Your task to perform on an android device: Open the calendar app, open the side menu, and click the "Day" option Image 0: 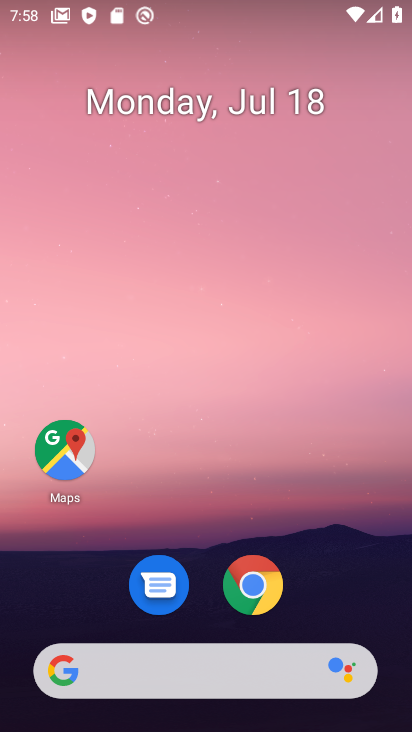
Step 0: press home button
Your task to perform on an android device: Open the calendar app, open the side menu, and click the "Day" option Image 1: 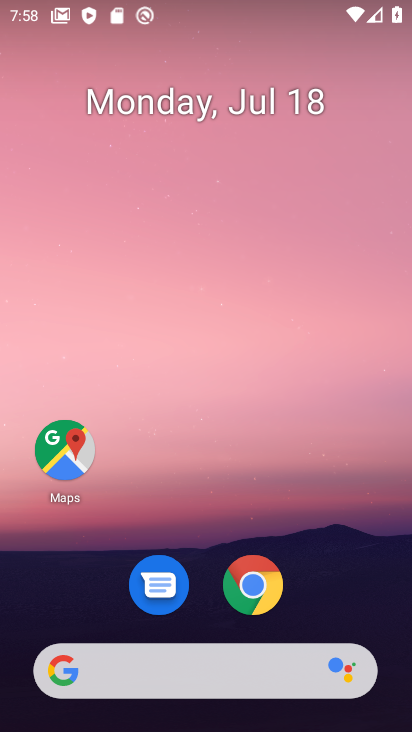
Step 1: drag from (192, 585) to (278, 138)
Your task to perform on an android device: Open the calendar app, open the side menu, and click the "Day" option Image 2: 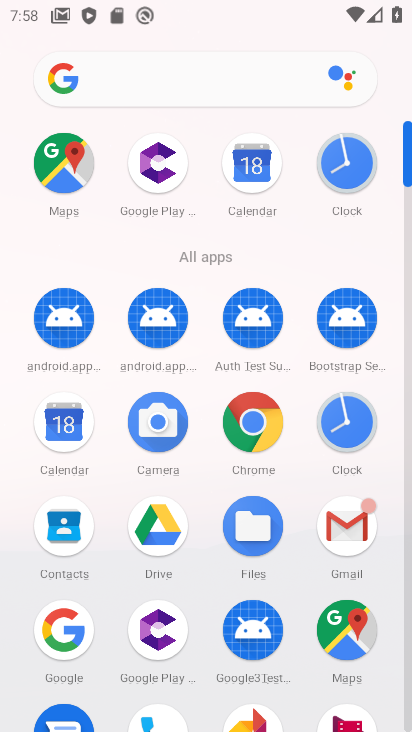
Step 2: click (61, 435)
Your task to perform on an android device: Open the calendar app, open the side menu, and click the "Day" option Image 3: 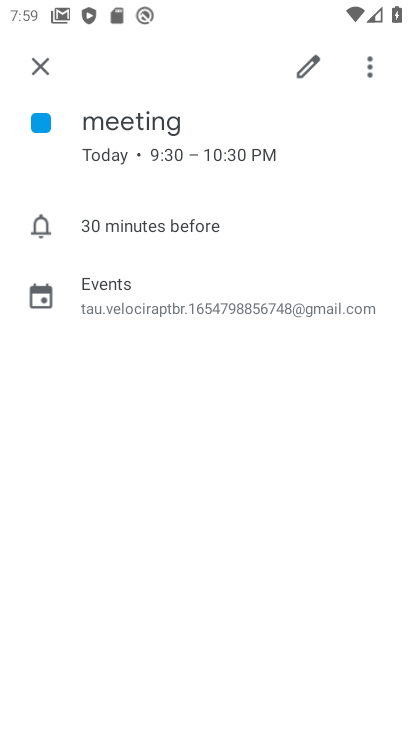
Step 3: click (44, 68)
Your task to perform on an android device: Open the calendar app, open the side menu, and click the "Day" option Image 4: 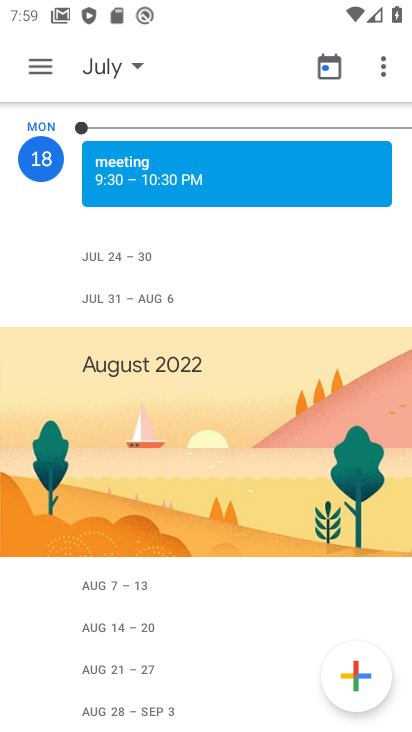
Step 4: click (48, 56)
Your task to perform on an android device: Open the calendar app, open the side menu, and click the "Day" option Image 5: 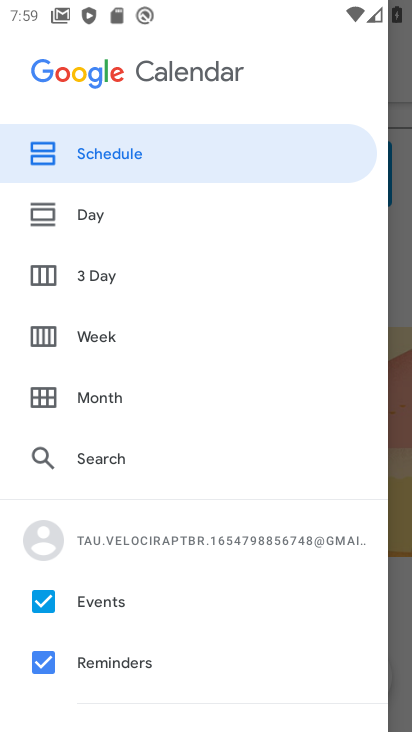
Step 5: click (86, 216)
Your task to perform on an android device: Open the calendar app, open the side menu, and click the "Day" option Image 6: 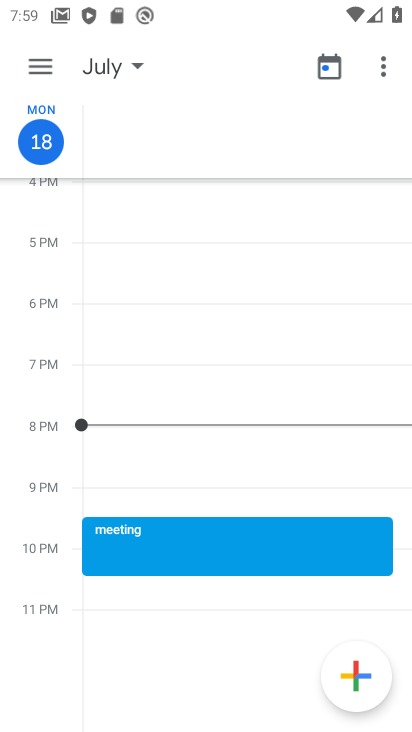
Step 6: task complete